Your task to perform on an android device: open the mobile data screen to see how much data has been used Image 0: 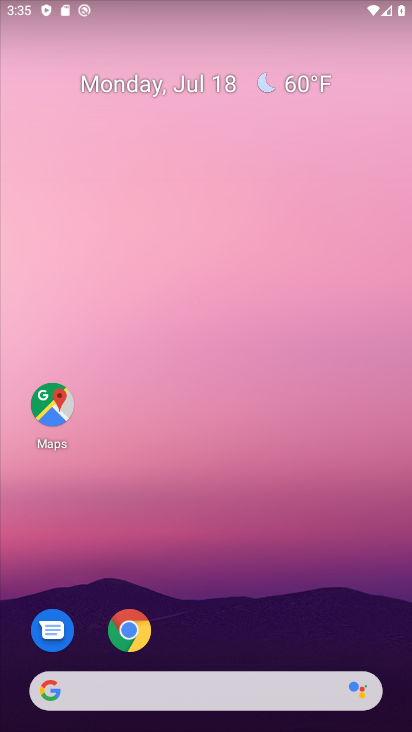
Step 0: drag from (231, 12) to (191, 478)
Your task to perform on an android device: open the mobile data screen to see how much data has been used Image 1: 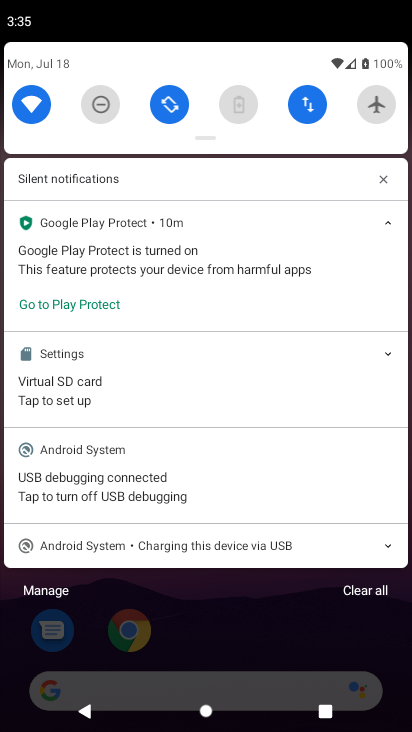
Step 1: click (306, 96)
Your task to perform on an android device: open the mobile data screen to see how much data has been used Image 2: 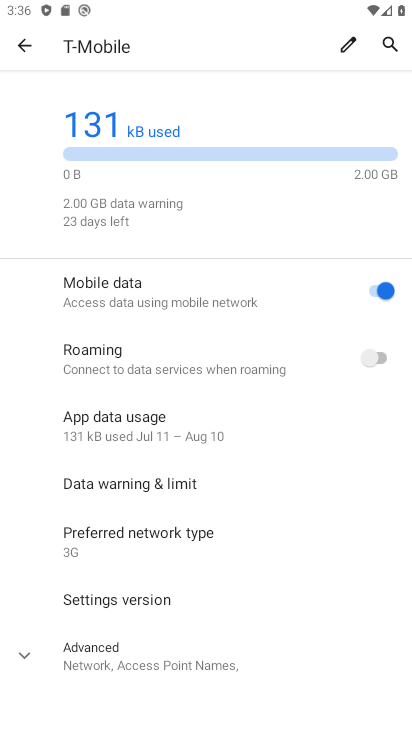
Step 2: task complete